Your task to perform on an android device: delete the emails in spam in the gmail app Image 0: 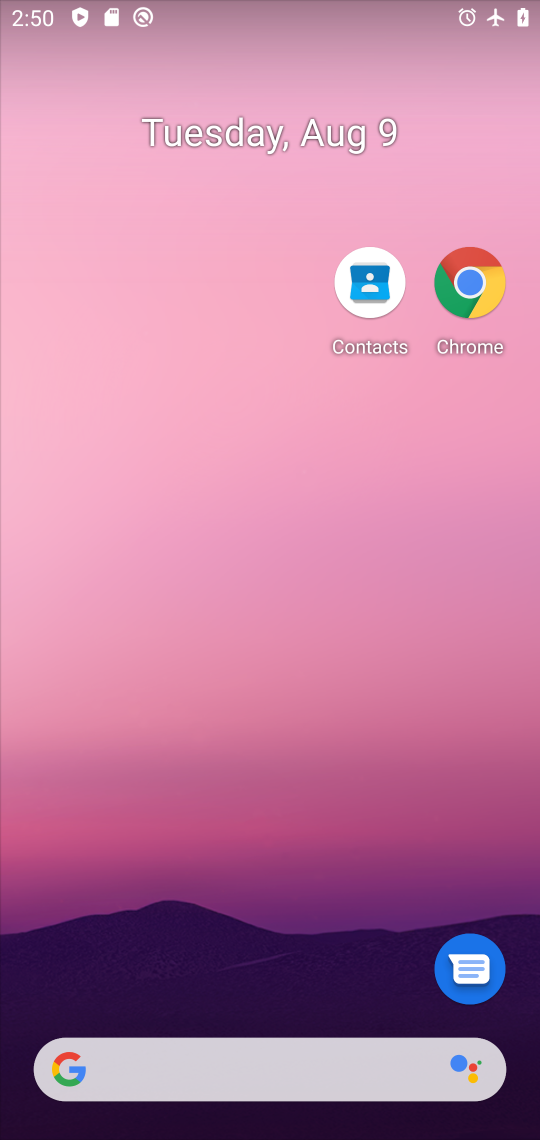
Step 0: drag from (253, 999) to (309, 452)
Your task to perform on an android device: delete the emails in spam in the gmail app Image 1: 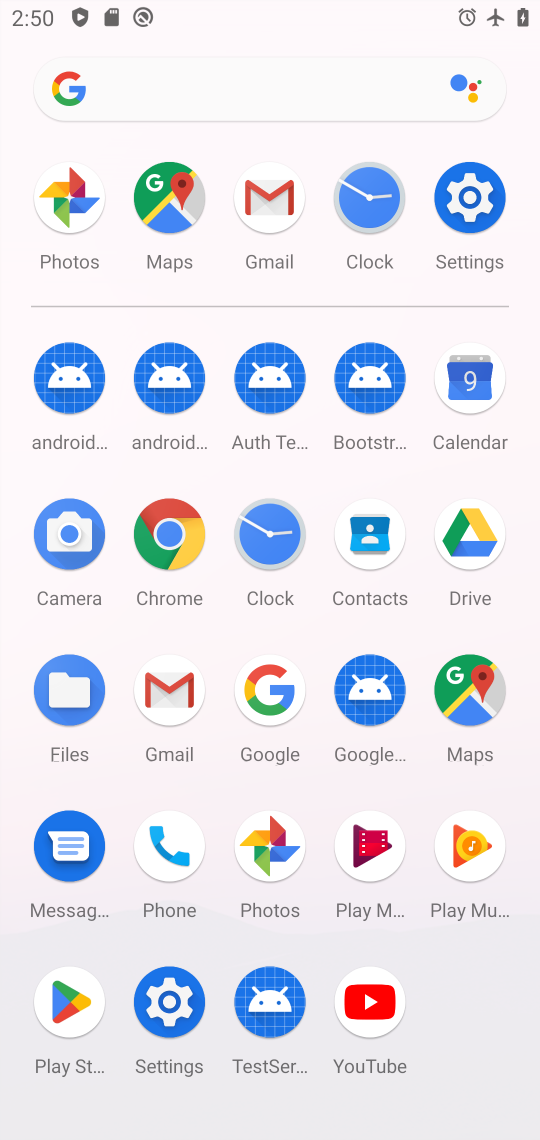
Step 1: click (146, 677)
Your task to perform on an android device: delete the emails in spam in the gmail app Image 2: 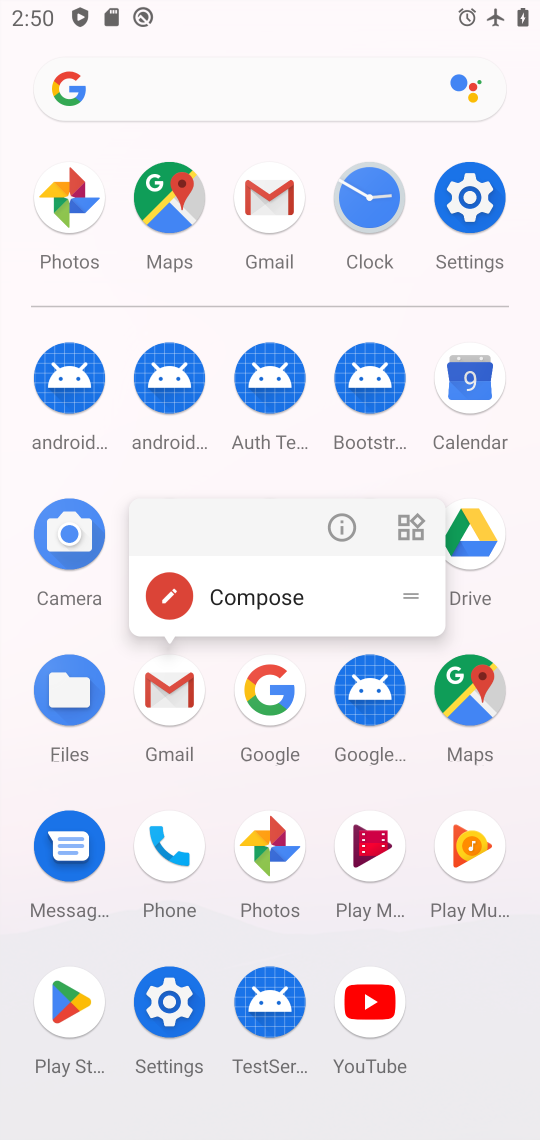
Step 2: click (337, 499)
Your task to perform on an android device: delete the emails in spam in the gmail app Image 3: 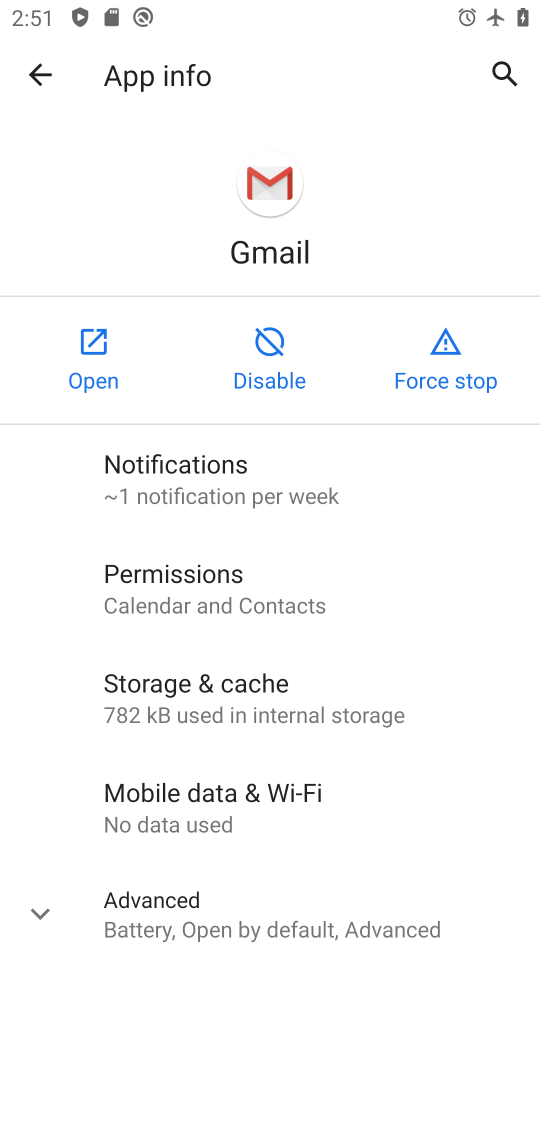
Step 3: click (103, 349)
Your task to perform on an android device: delete the emails in spam in the gmail app Image 4: 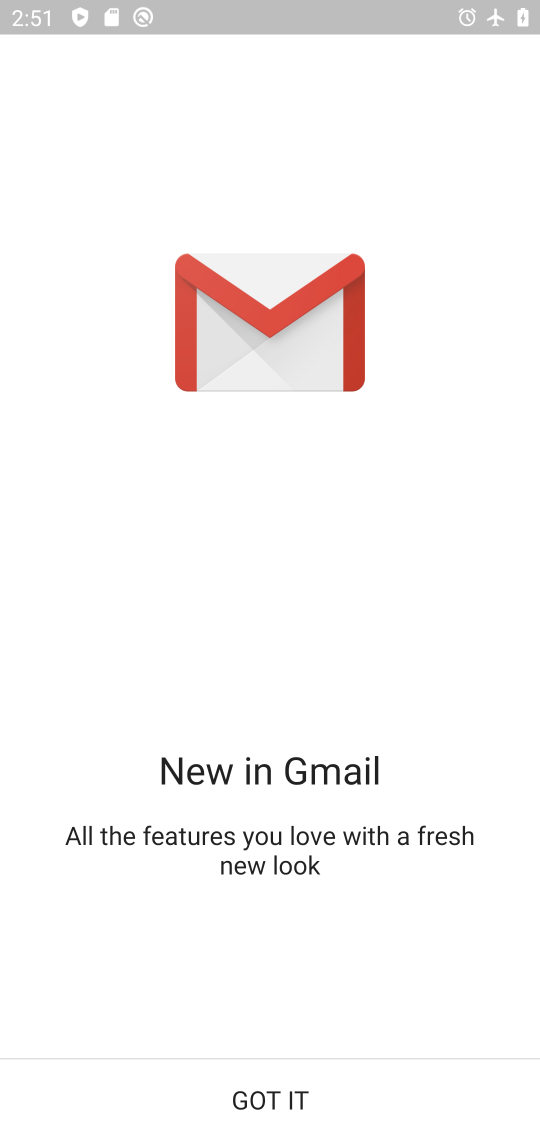
Step 4: click (287, 1123)
Your task to perform on an android device: delete the emails in spam in the gmail app Image 5: 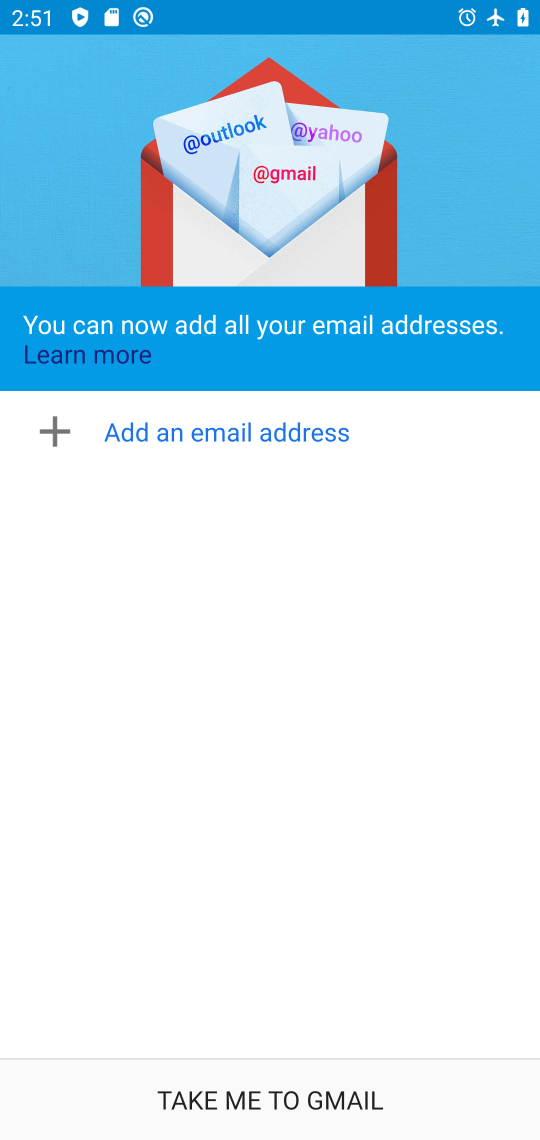
Step 5: task complete